Your task to perform on an android device: set default search engine in the chrome app Image 0: 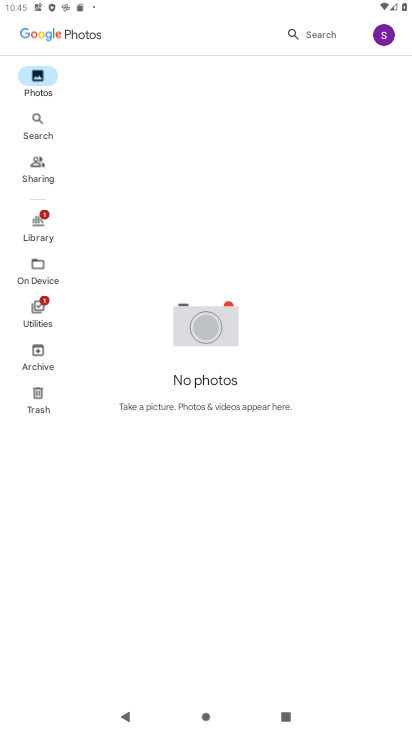
Step 0: press home button
Your task to perform on an android device: set default search engine in the chrome app Image 1: 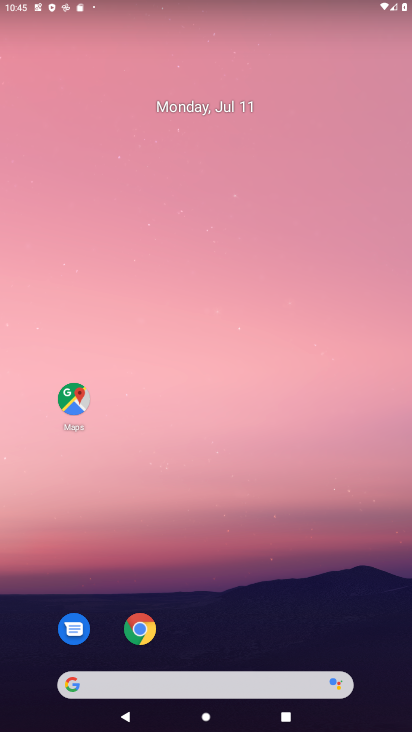
Step 1: click (139, 649)
Your task to perform on an android device: set default search engine in the chrome app Image 2: 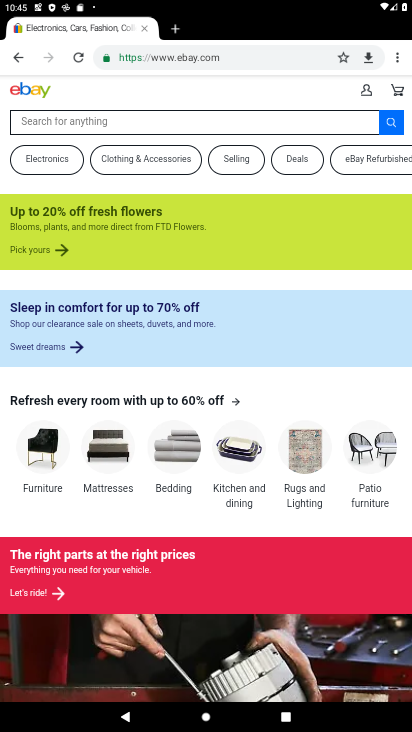
Step 2: click (394, 59)
Your task to perform on an android device: set default search engine in the chrome app Image 3: 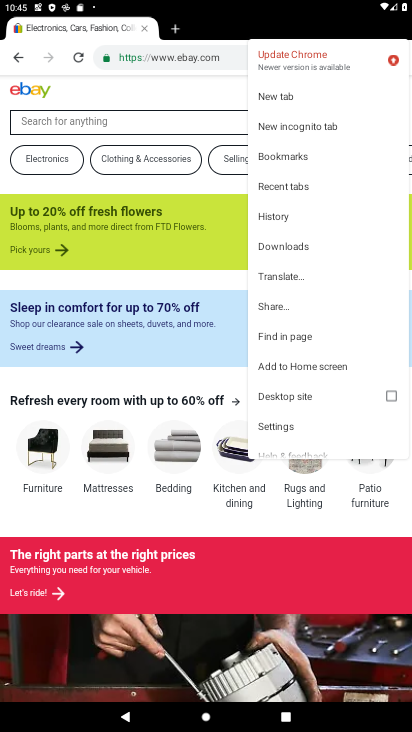
Step 3: click (302, 420)
Your task to perform on an android device: set default search engine in the chrome app Image 4: 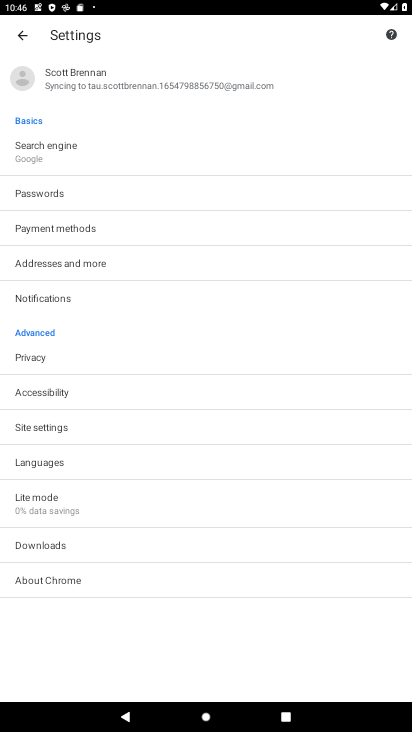
Step 4: click (66, 168)
Your task to perform on an android device: set default search engine in the chrome app Image 5: 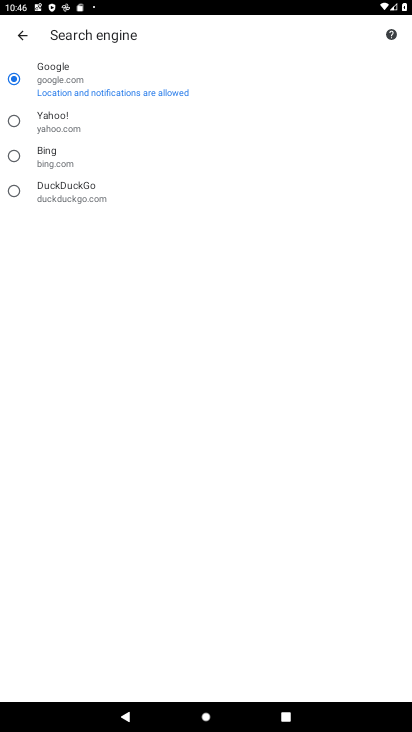
Step 5: click (78, 127)
Your task to perform on an android device: set default search engine in the chrome app Image 6: 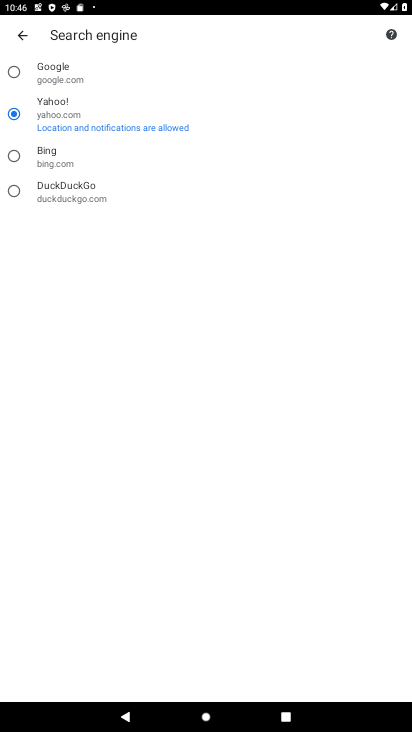
Step 6: task complete